Your task to perform on an android device: turn off notifications in google photos Image 0: 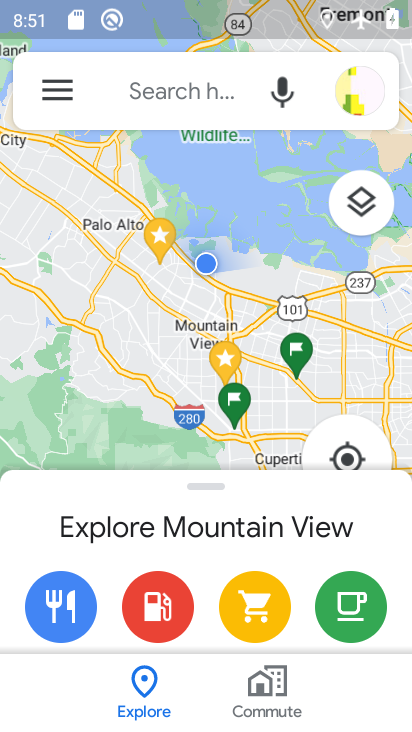
Step 0: press home button
Your task to perform on an android device: turn off notifications in google photos Image 1: 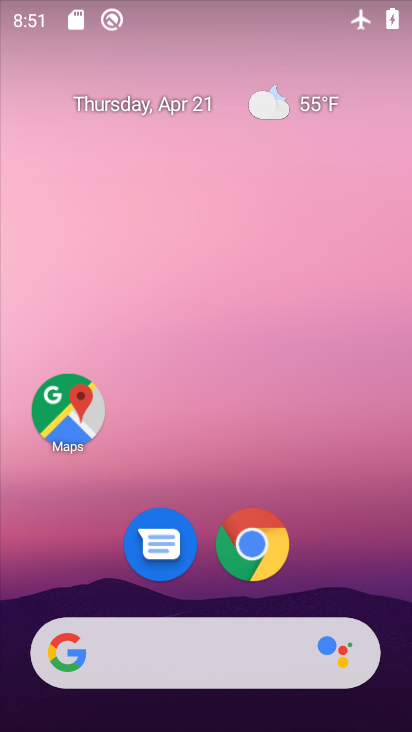
Step 1: drag from (203, 725) to (183, 76)
Your task to perform on an android device: turn off notifications in google photos Image 2: 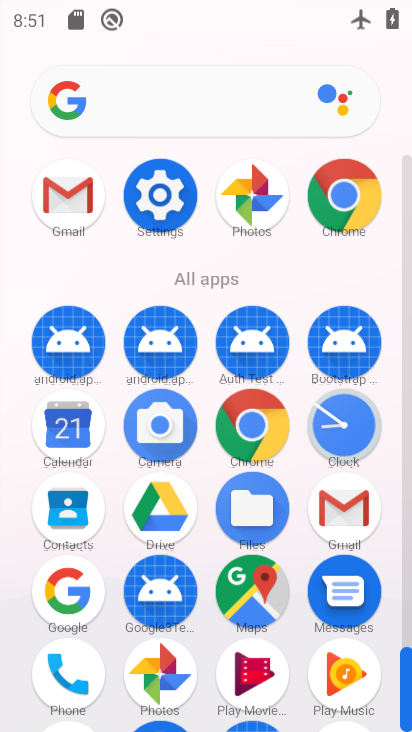
Step 2: click (248, 198)
Your task to perform on an android device: turn off notifications in google photos Image 3: 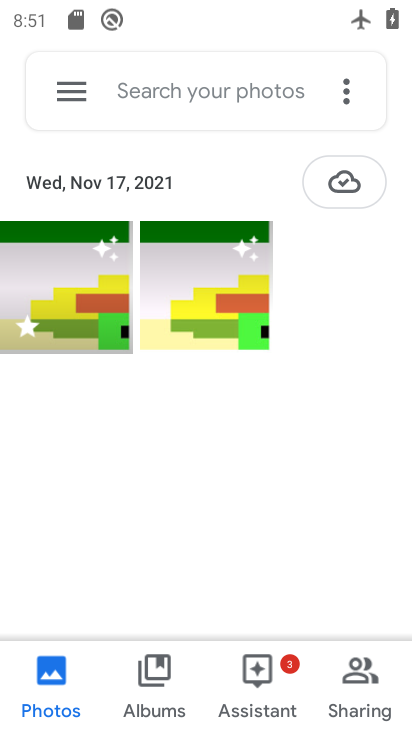
Step 3: click (71, 97)
Your task to perform on an android device: turn off notifications in google photos Image 4: 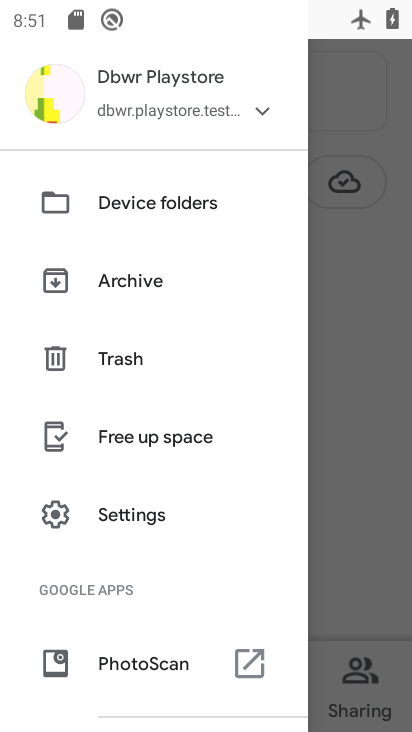
Step 4: click (123, 511)
Your task to perform on an android device: turn off notifications in google photos Image 5: 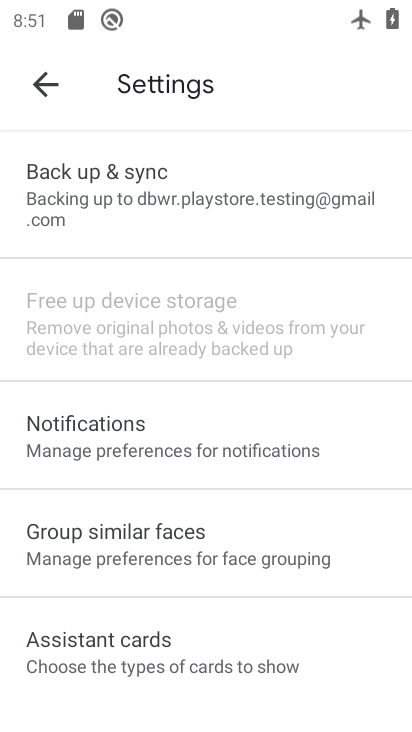
Step 5: click (92, 438)
Your task to perform on an android device: turn off notifications in google photos Image 6: 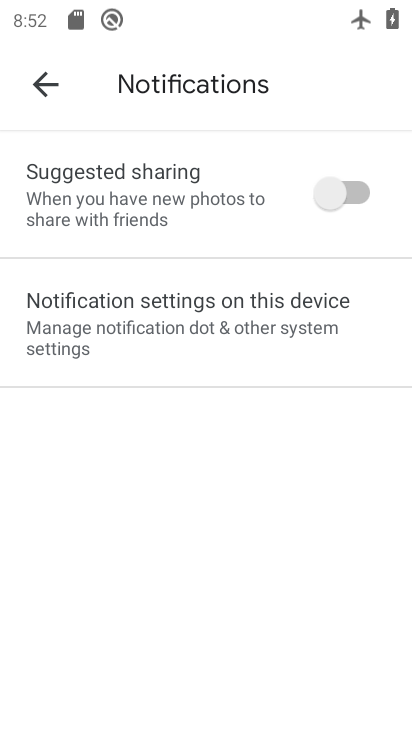
Step 6: click (140, 315)
Your task to perform on an android device: turn off notifications in google photos Image 7: 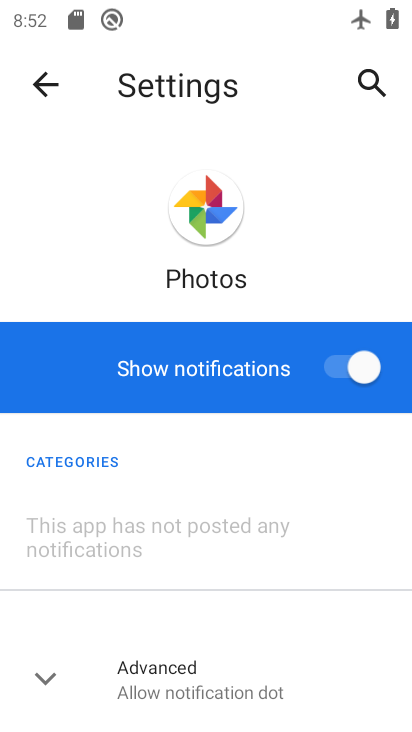
Step 7: click (334, 373)
Your task to perform on an android device: turn off notifications in google photos Image 8: 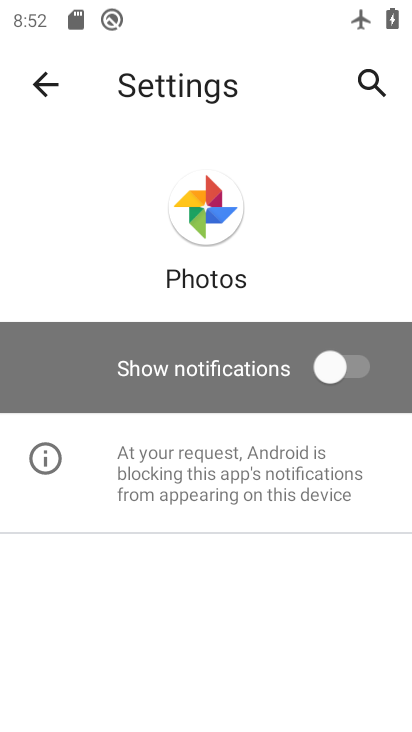
Step 8: task complete